Your task to perform on an android device: Search for pizza restaurants on Maps Image 0: 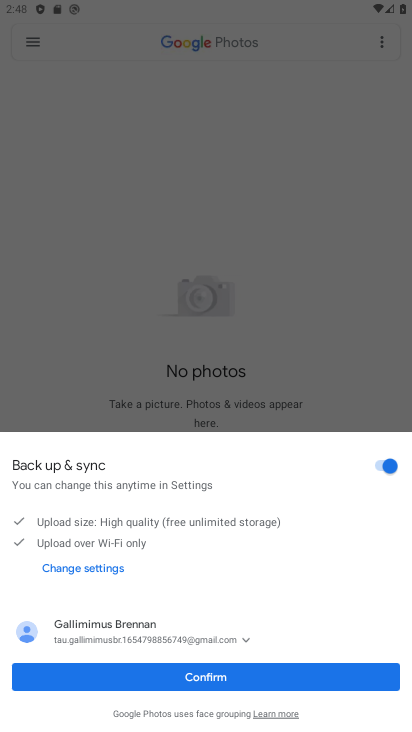
Step 0: press home button
Your task to perform on an android device: Search for pizza restaurants on Maps Image 1: 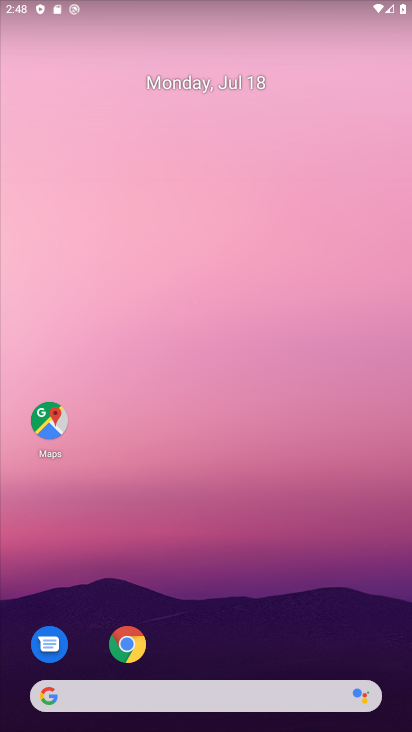
Step 1: drag from (314, 626) to (270, 164)
Your task to perform on an android device: Search for pizza restaurants on Maps Image 2: 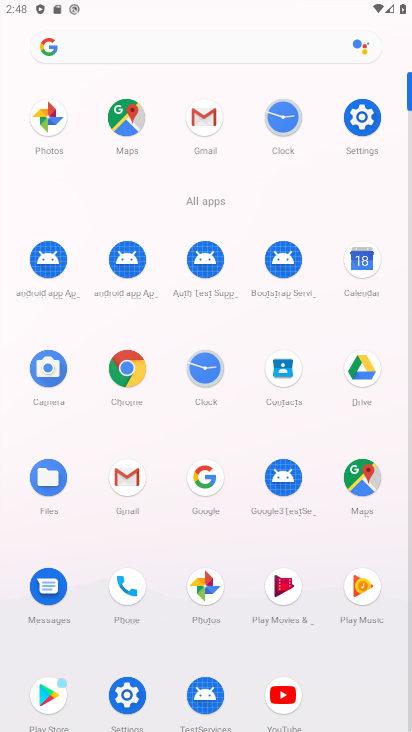
Step 2: click (116, 116)
Your task to perform on an android device: Search for pizza restaurants on Maps Image 3: 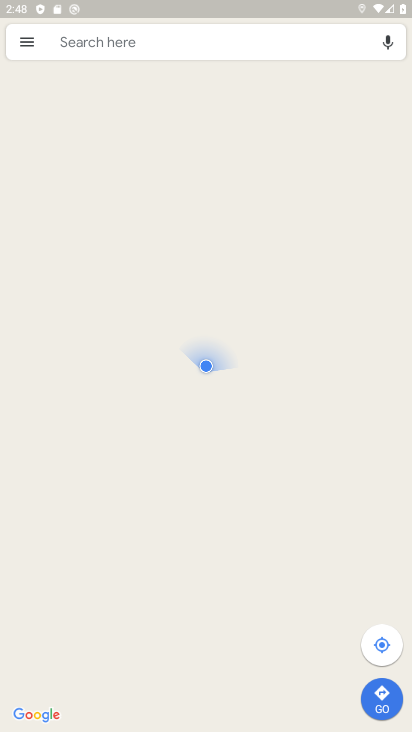
Step 3: click (249, 40)
Your task to perform on an android device: Search for pizza restaurants on Maps Image 4: 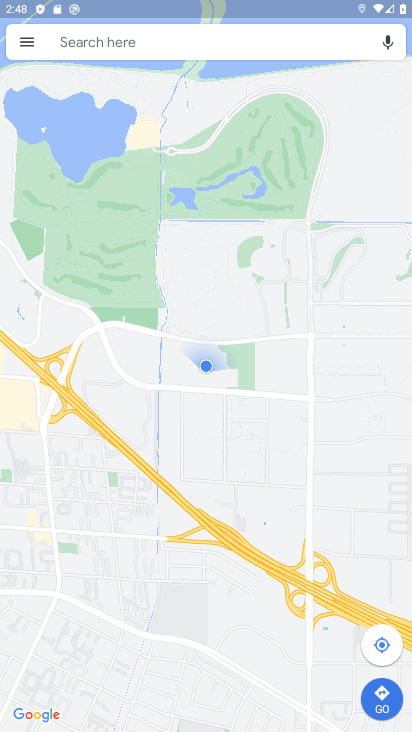
Step 4: click (249, 40)
Your task to perform on an android device: Search for pizza restaurants on Maps Image 5: 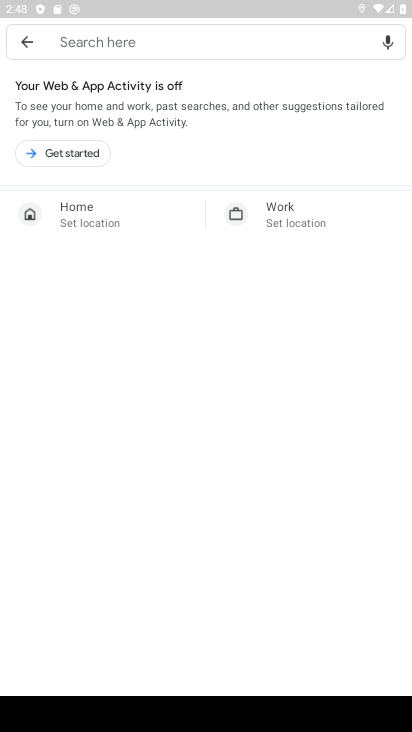
Step 5: type "pizza restaurants"
Your task to perform on an android device: Search for pizza restaurants on Maps Image 6: 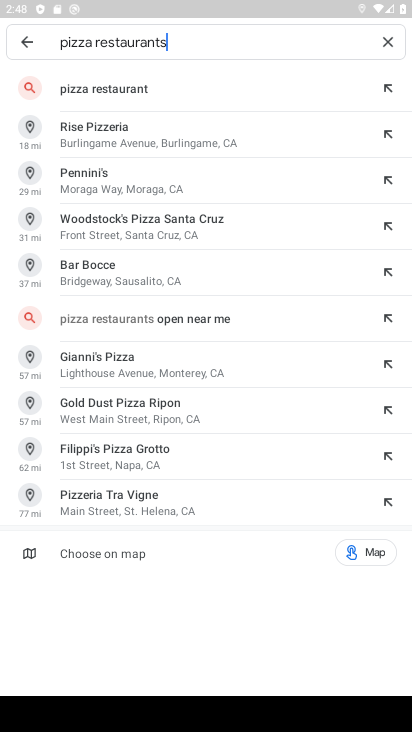
Step 6: click (210, 84)
Your task to perform on an android device: Search for pizza restaurants on Maps Image 7: 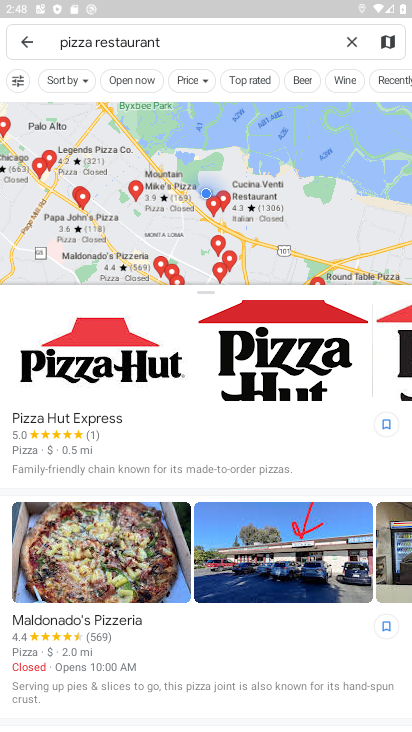
Step 7: task complete